Your task to perform on an android device: What's on my calendar tomorrow? Image 0: 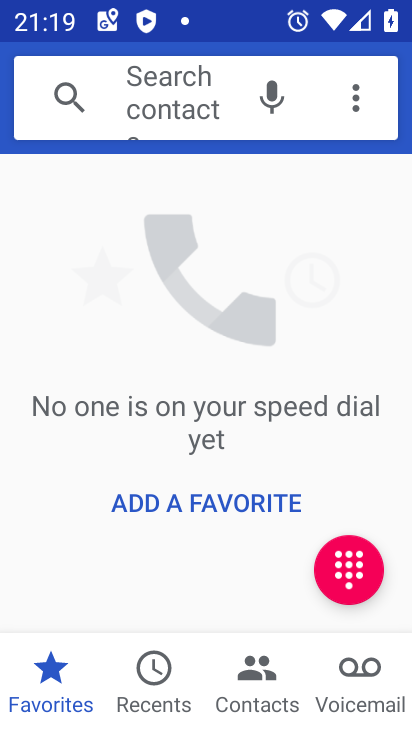
Step 0: press home button
Your task to perform on an android device: What's on my calendar tomorrow? Image 1: 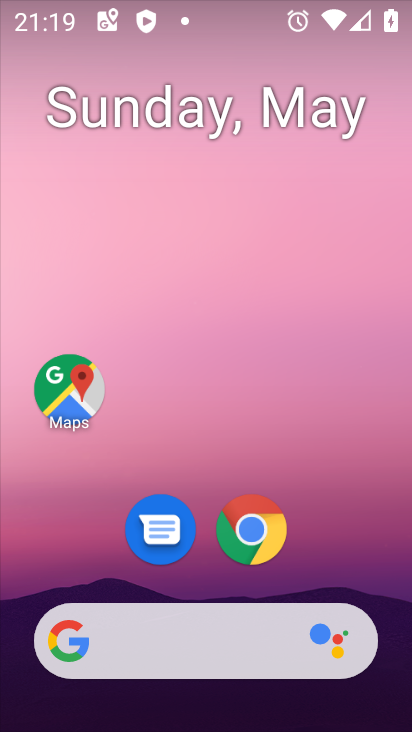
Step 1: drag from (368, 603) to (363, 28)
Your task to perform on an android device: What's on my calendar tomorrow? Image 2: 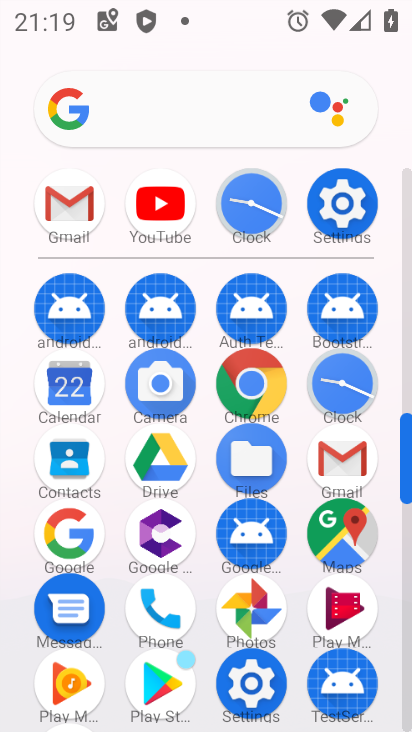
Step 2: click (65, 392)
Your task to perform on an android device: What's on my calendar tomorrow? Image 3: 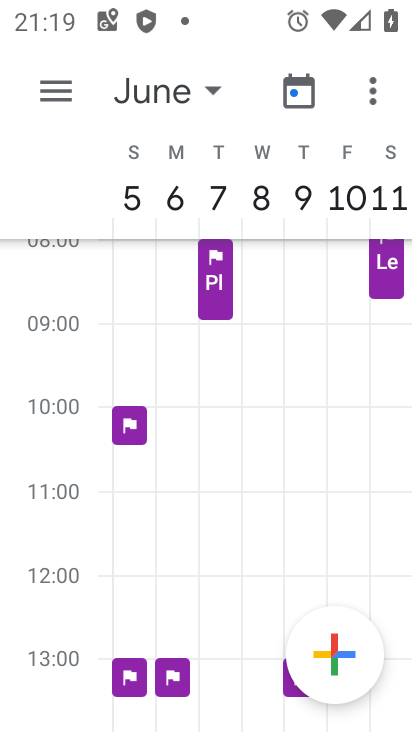
Step 3: click (294, 98)
Your task to perform on an android device: What's on my calendar tomorrow? Image 4: 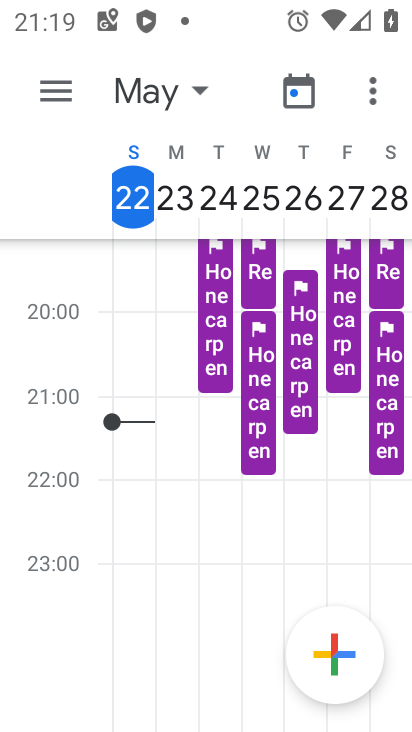
Step 4: click (171, 201)
Your task to perform on an android device: What's on my calendar tomorrow? Image 5: 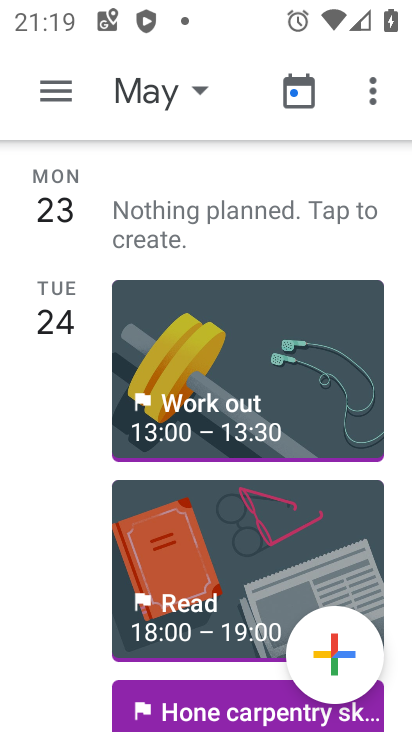
Step 5: click (157, 208)
Your task to perform on an android device: What's on my calendar tomorrow? Image 6: 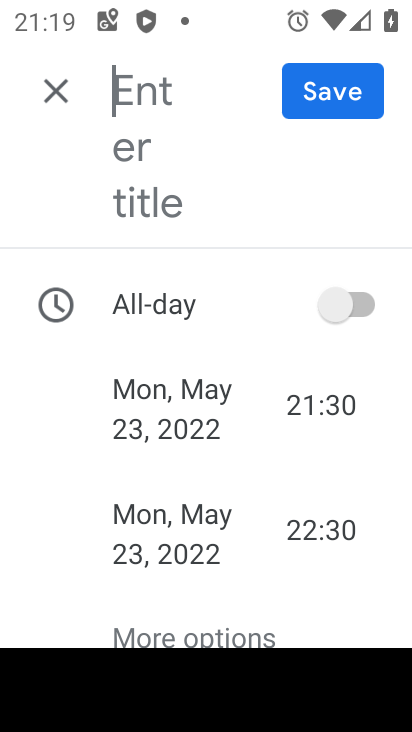
Step 6: task complete